Your task to perform on an android device: turn notification dots on Image 0: 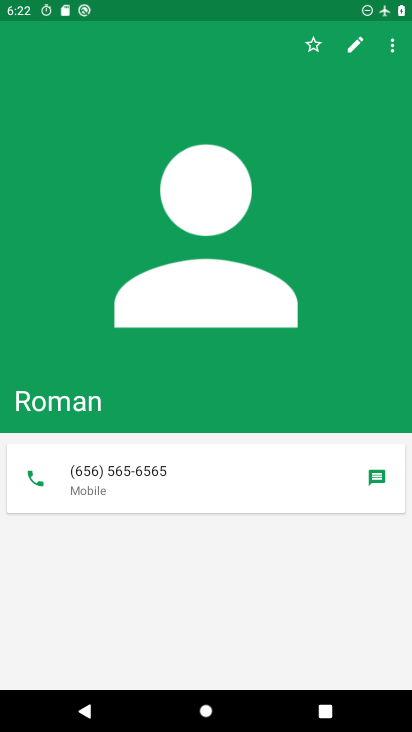
Step 0: press home button
Your task to perform on an android device: turn notification dots on Image 1: 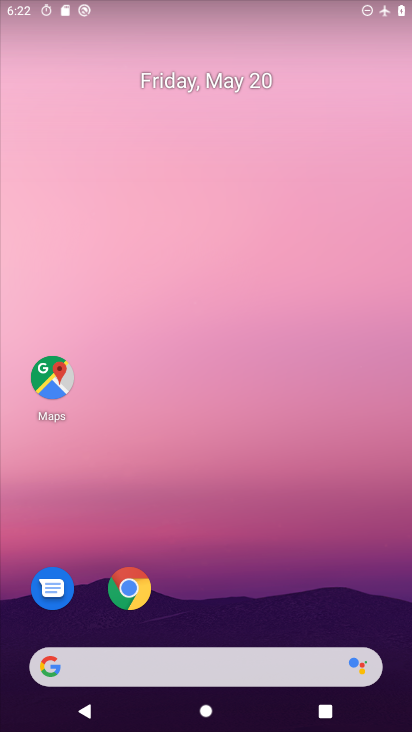
Step 1: drag from (230, 586) to (225, 129)
Your task to perform on an android device: turn notification dots on Image 2: 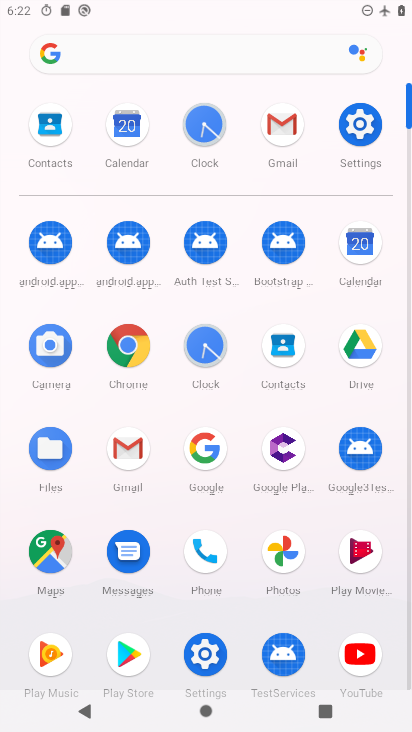
Step 2: click (280, 168)
Your task to perform on an android device: turn notification dots on Image 3: 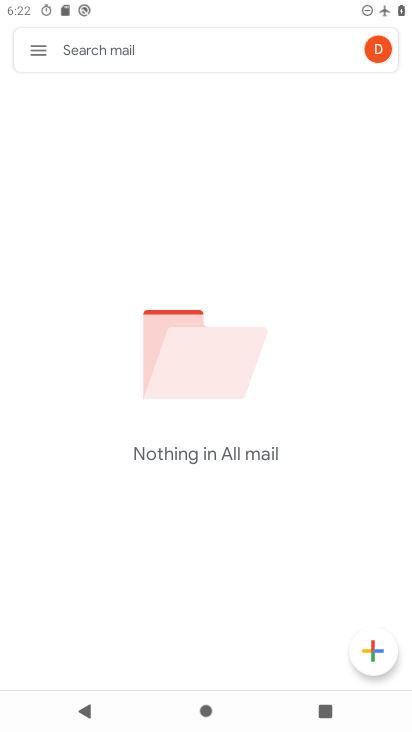
Step 3: press back button
Your task to perform on an android device: turn notification dots on Image 4: 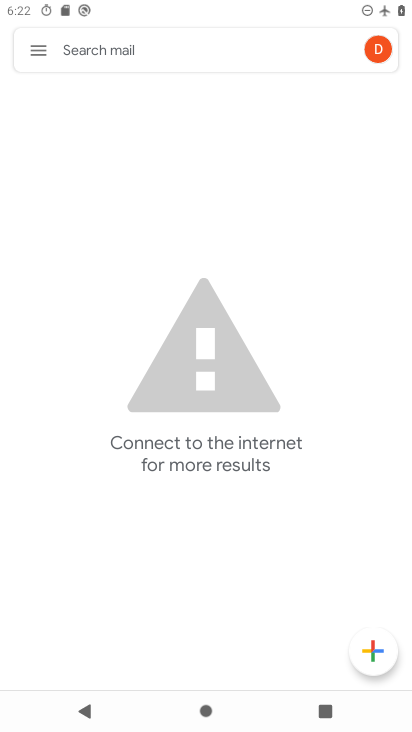
Step 4: press home button
Your task to perform on an android device: turn notification dots on Image 5: 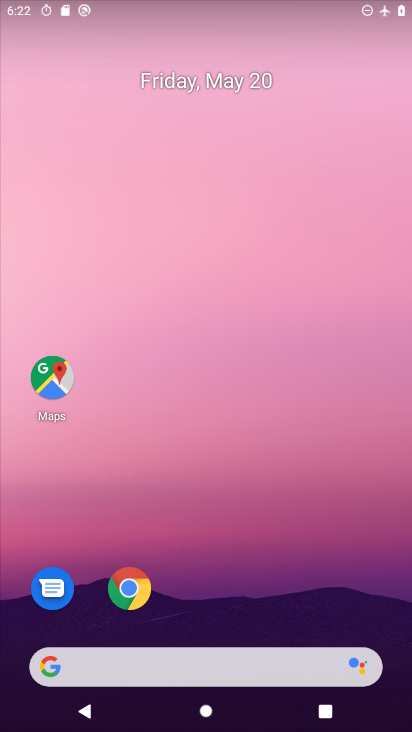
Step 5: drag from (213, 572) to (215, 174)
Your task to perform on an android device: turn notification dots on Image 6: 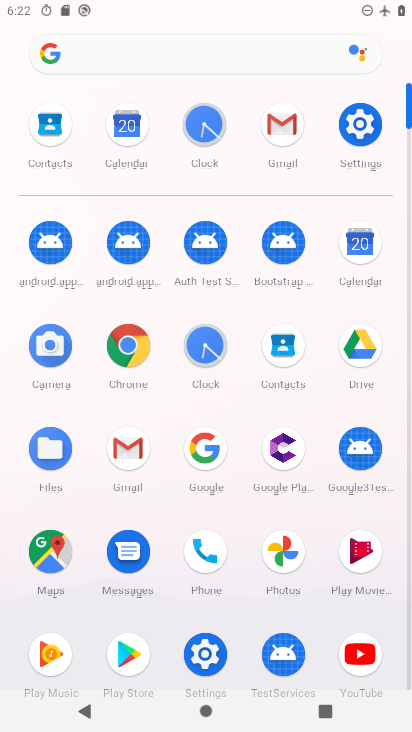
Step 6: click (365, 133)
Your task to perform on an android device: turn notification dots on Image 7: 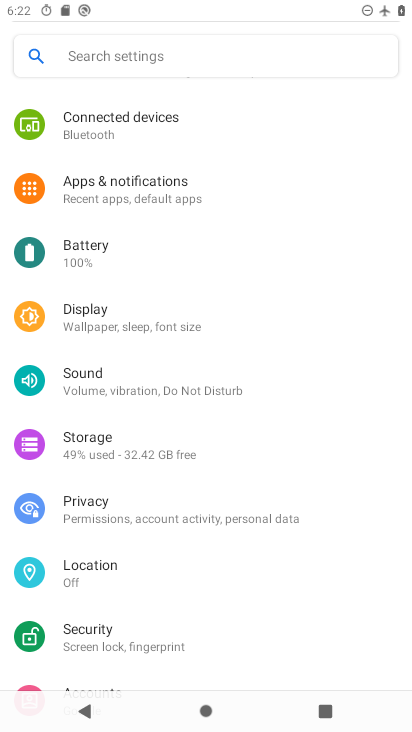
Step 7: click (135, 192)
Your task to perform on an android device: turn notification dots on Image 8: 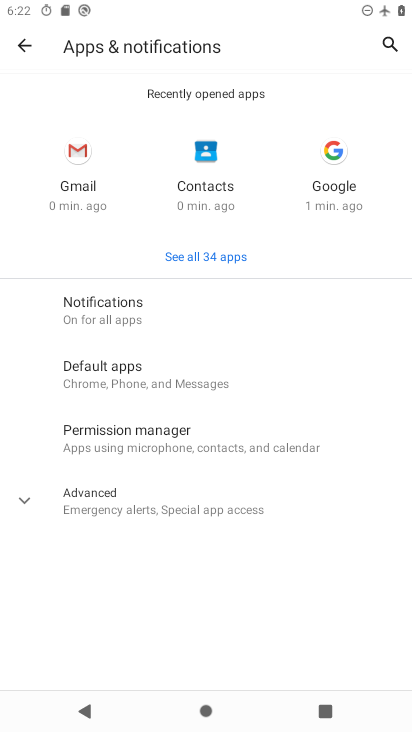
Step 8: click (119, 505)
Your task to perform on an android device: turn notification dots on Image 9: 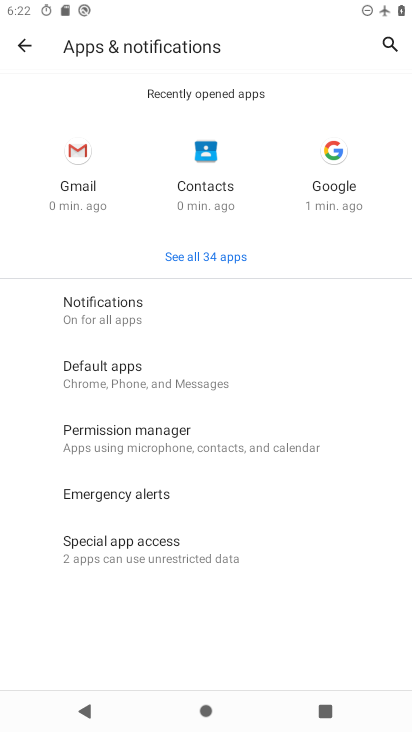
Step 9: click (132, 319)
Your task to perform on an android device: turn notification dots on Image 10: 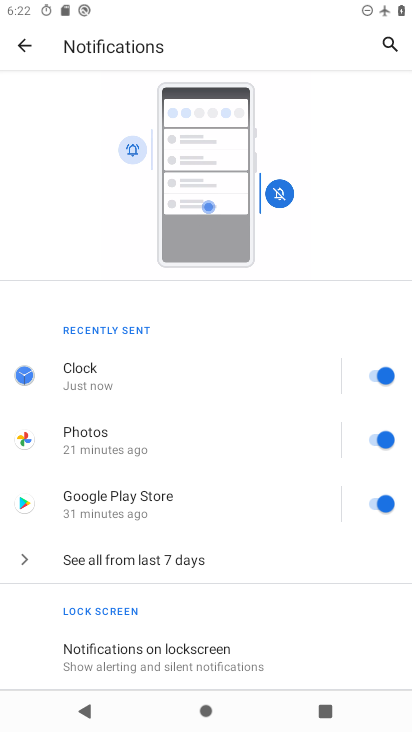
Step 10: drag from (148, 623) to (166, 337)
Your task to perform on an android device: turn notification dots on Image 11: 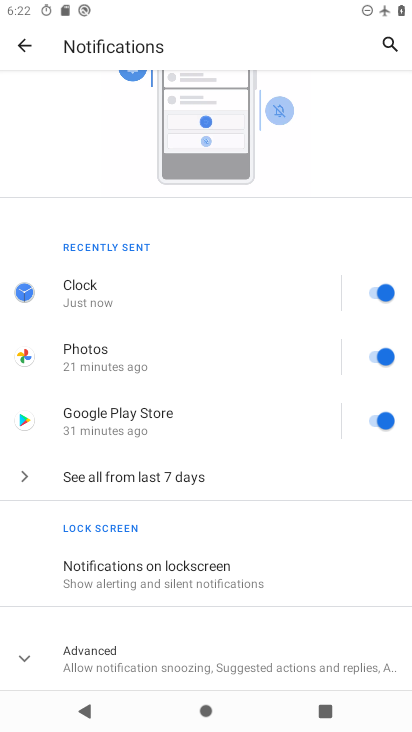
Step 11: click (97, 664)
Your task to perform on an android device: turn notification dots on Image 12: 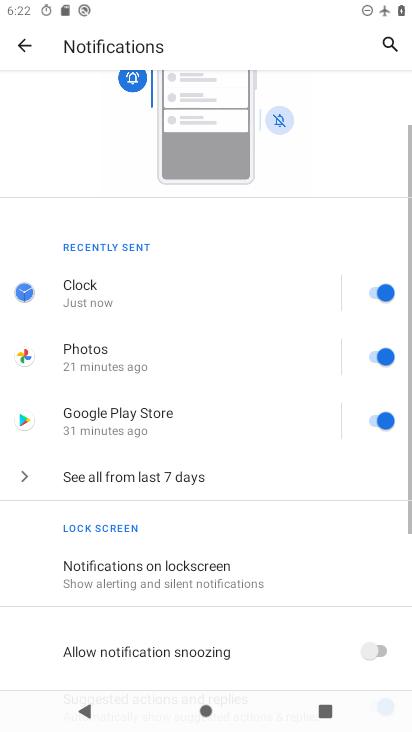
Step 12: drag from (122, 658) to (194, 404)
Your task to perform on an android device: turn notification dots on Image 13: 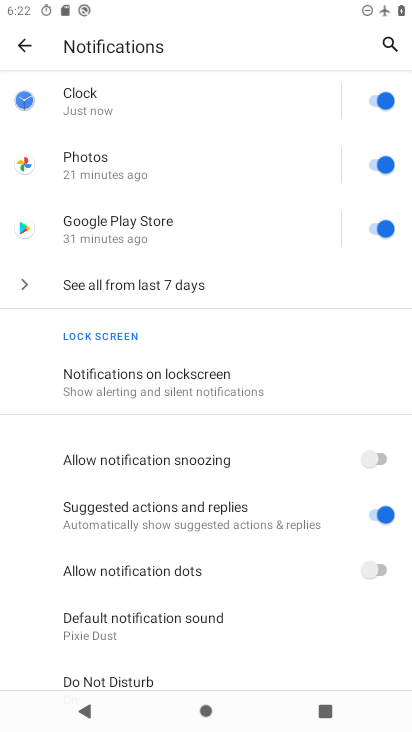
Step 13: click (379, 575)
Your task to perform on an android device: turn notification dots on Image 14: 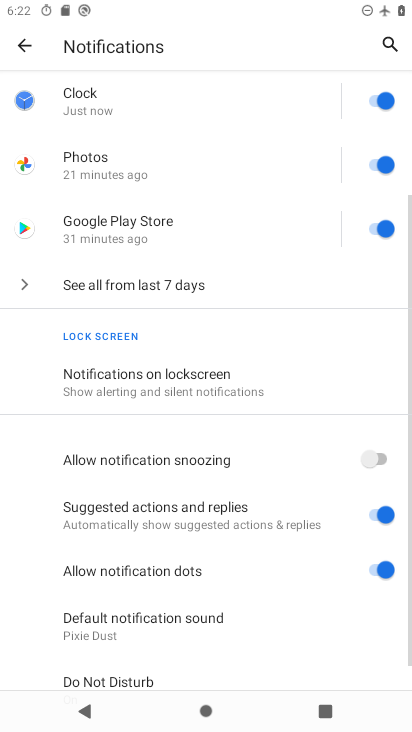
Step 14: task complete